Your task to perform on an android device: turn off notifications in google photos Image 0: 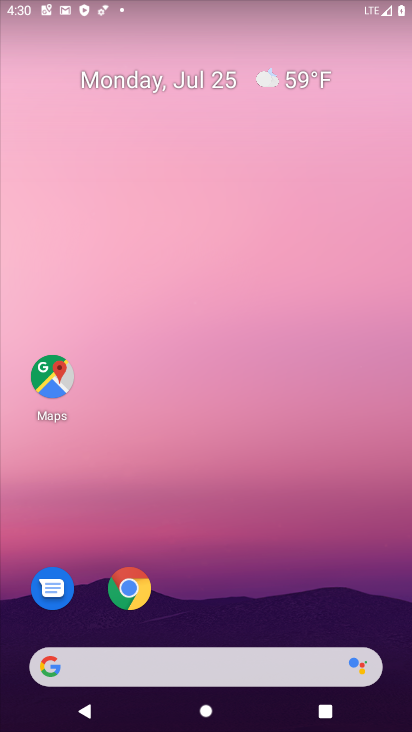
Step 0: drag from (203, 593) to (226, 45)
Your task to perform on an android device: turn off notifications in google photos Image 1: 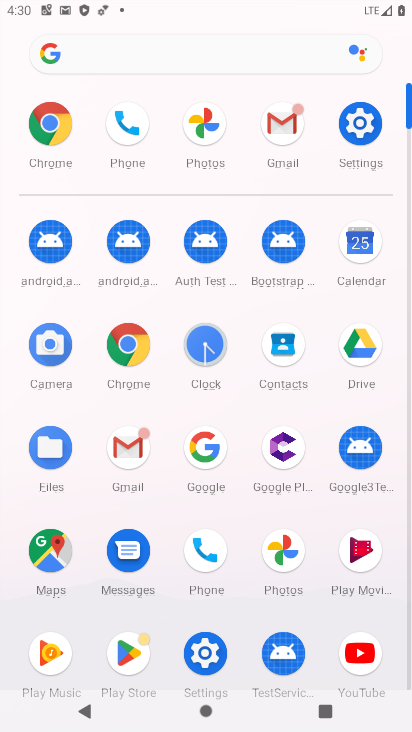
Step 1: click (168, 90)
Your task to perform on an android device: turn off notifications in google photos Image 2: 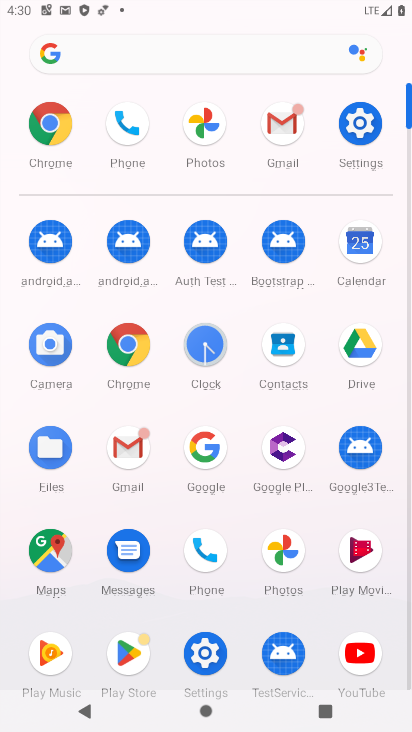
Step 2: click (159, 122)
Your task to perform on an android device: turn off notifications in google photos Image 3: 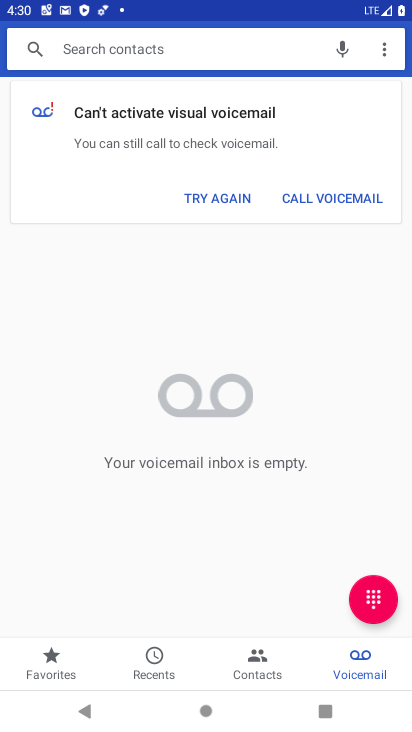
Step 3: press home button
Your task to perform on an android device: turn off notifications in google photos Image 4: 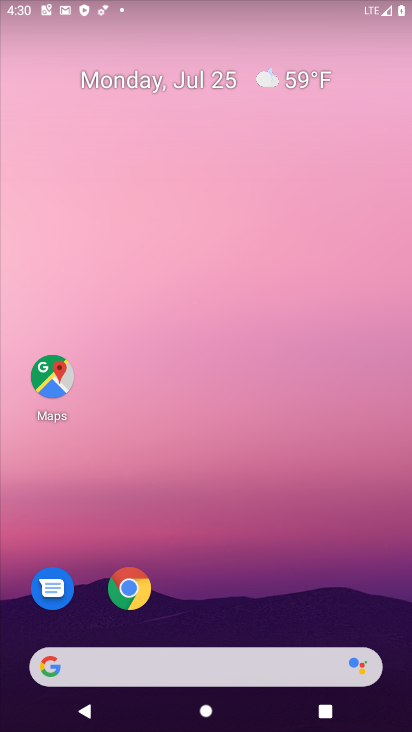
Step 4: drag from (291, 504) to (244, 94)
Your task to perform on an android device: turn off notifications in google photos Image 5: 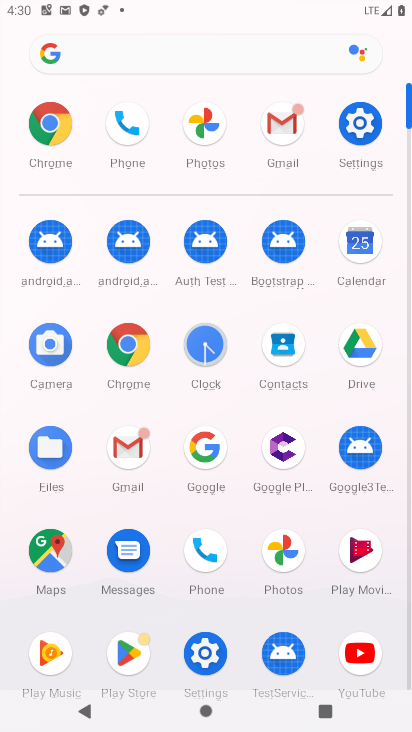
Step 5: click (197, 124)
Your task to perform on an android device: turn off notifications in google photos Image 6: 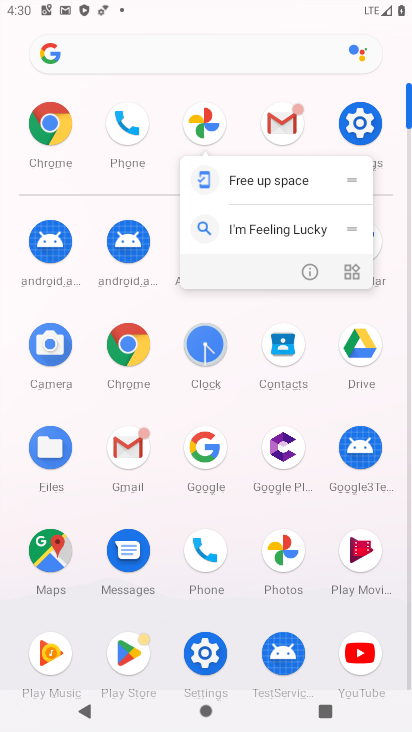
Step 6: click (304, 264)
Your task to perform on an android device: turn off notifications in google photos Image 7: 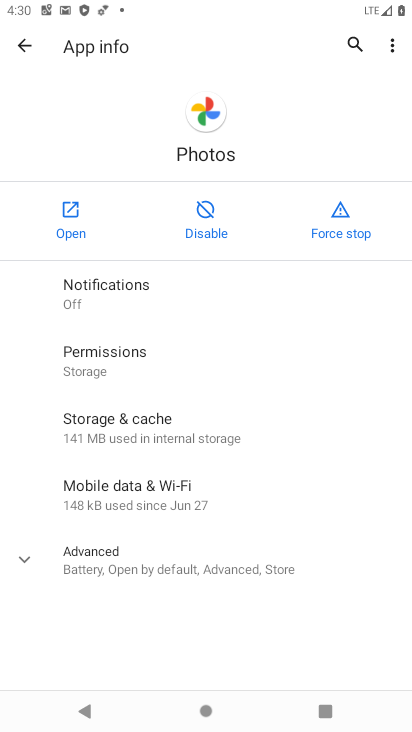
Step 7: click (75, 308)
Your task to perform on an android device: turn off notifications in google photos Image 8: 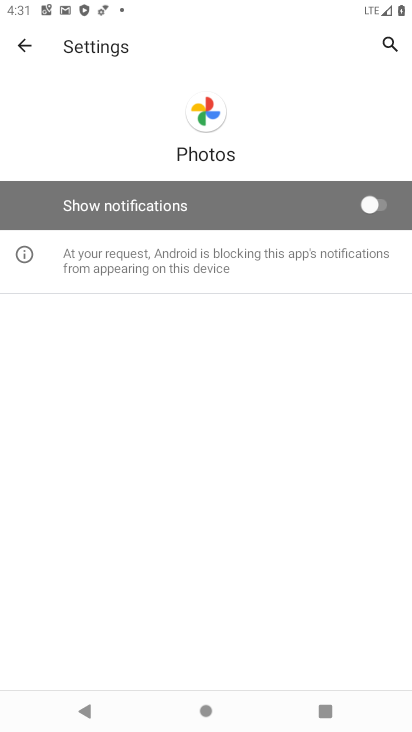
Step 8: task complete